Your task to perform on an android device: open a new tab in the chrome app Image 0: 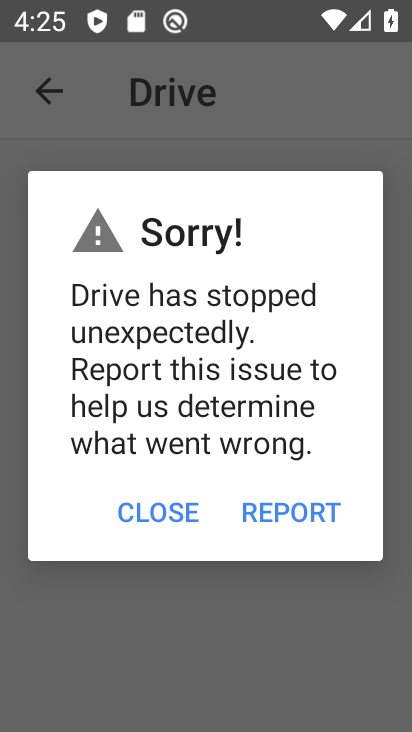
Step 0: press home button
Your task to perform on an android device: open a new tab in the chrome app Image 1: 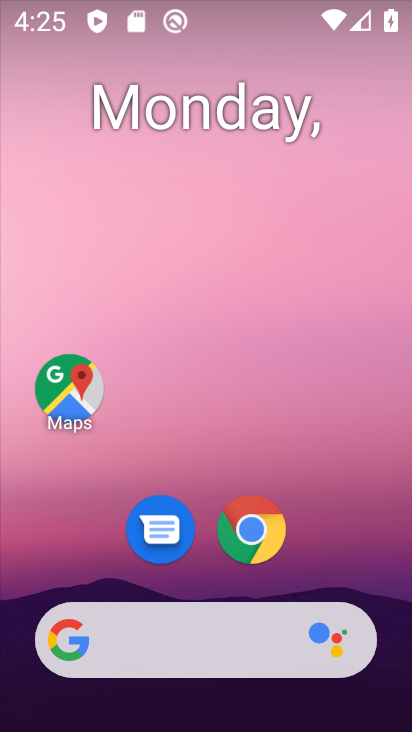
Step 1: click (259, 516)
Your task to perform on an android device: open a new tab in the chrome app Image 2: 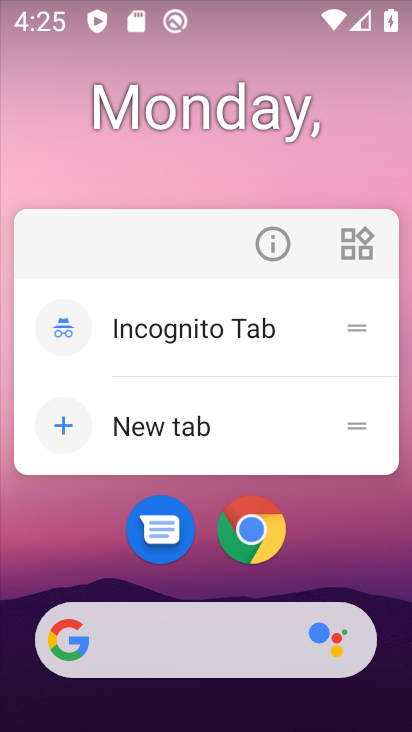
Step 2: click (260, 526)
Your task to perform on an android device: open a new tab in the chrome app Image 3: 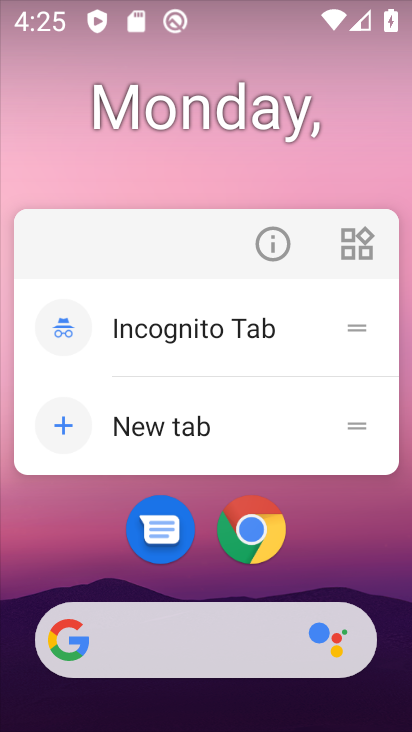
Step 3: click (263, 529)
Your task to perform on an android device: open a new tab in the chrome app Image 4: 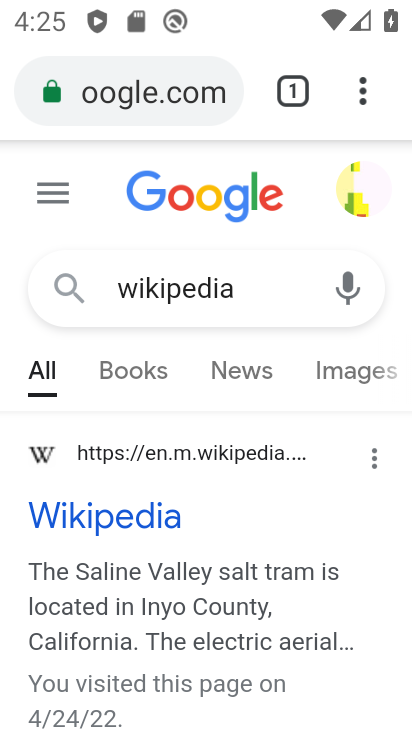
Step 4: click (361, 84)
Your task to perform on an android device: open a new tab in the chrome app Image 5: 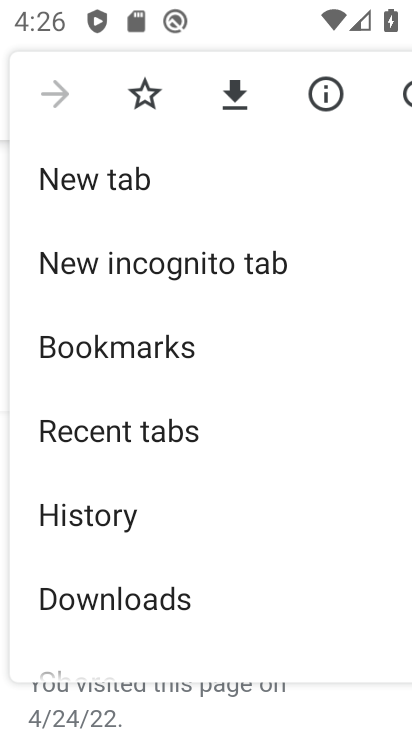
Step 5: click (119, 186)
Your task to perform on an android device: open a new tab in the chrome app Image 6: 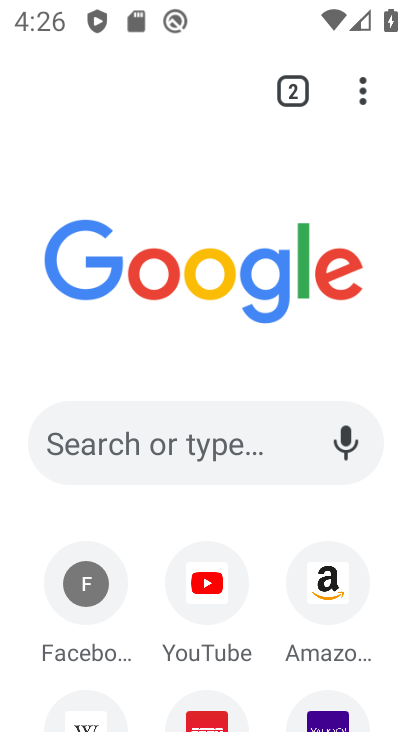
Step 6: task complete